Your task to perform on an android device: open chrome and create a bookmark for the current page Image 0: 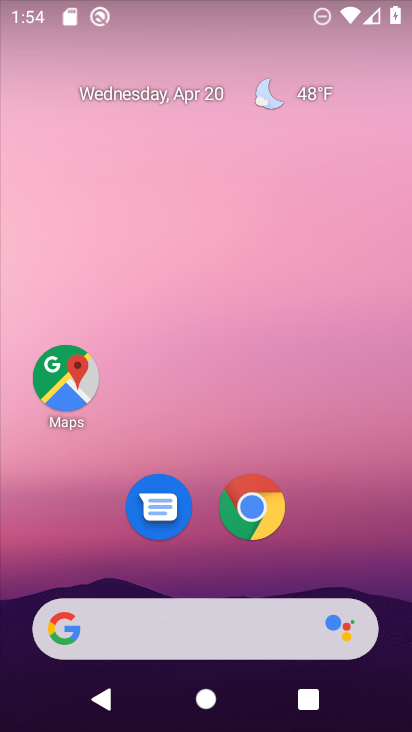
Step 0: drag from (203, 694) to (200, 72)
Your task to perform on an android device: open chrome and create a bookmark for the current page Image 1: 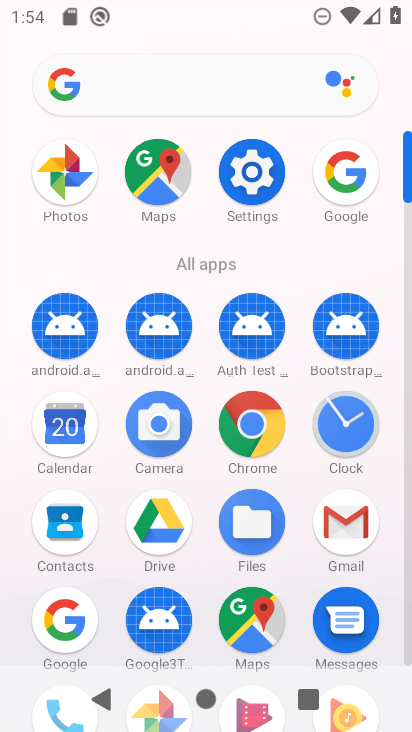
Step 1: click (256, 421)
Your task to perform on an android device: open chrome and create a bookmark for the current page Image 2: 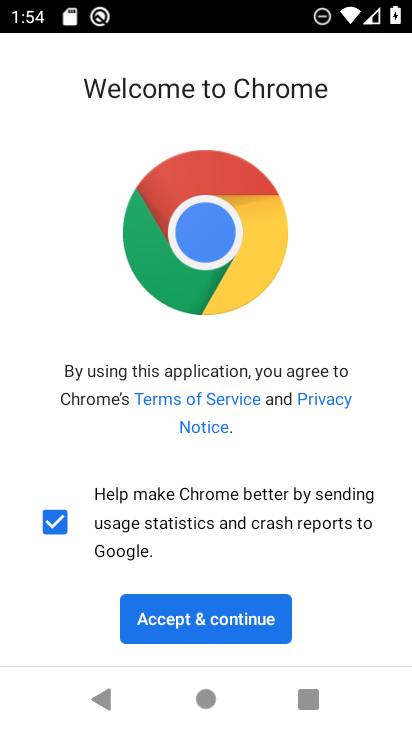
Step 2: click (223, 619)
Your task to perform on an android device: open chrome and create a bookmark for the current page Image 3: 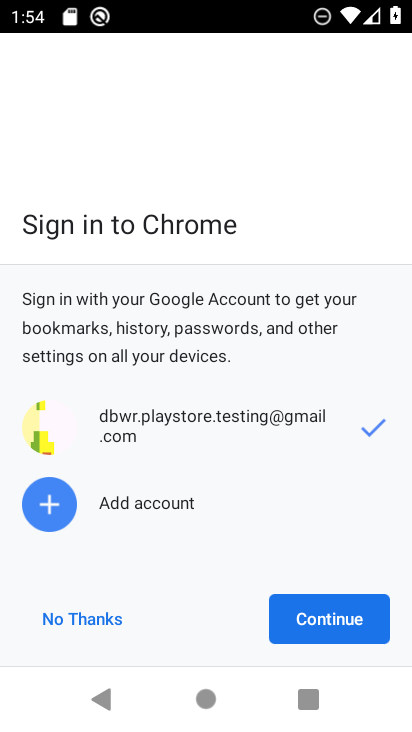
Step 3: click (335, 621)
Your task to perform on an android device: open chrome and create a bookmark for the current page Image 4: 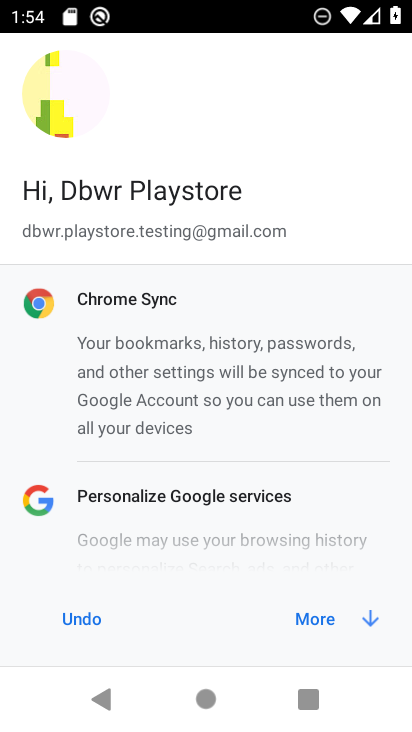
Step 4: click (324, 616)
Your task to perform on an android device: open chrome and create a bookmark for the current page Image 5: 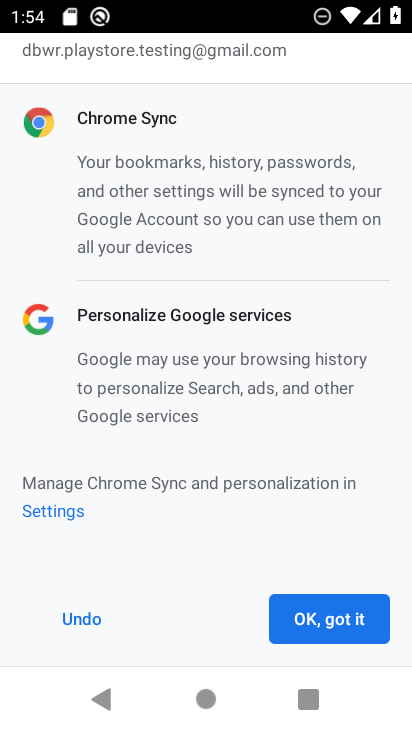
Step 5: click (324, 616)
Your task to perform on an android device: open chrome and create a bookmark for the current page Image 6: 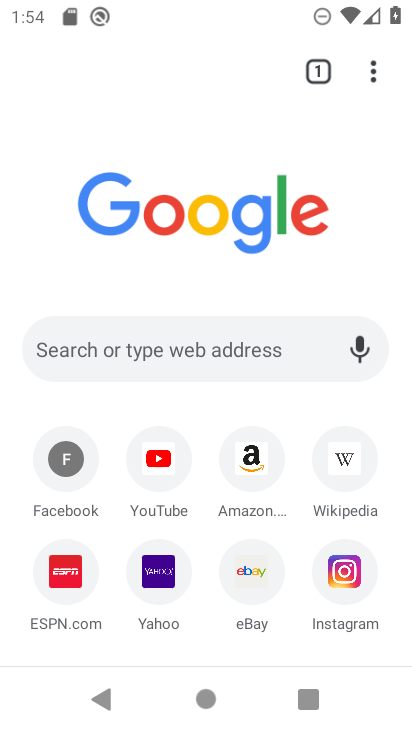
Step 6: click (371, 78)
Your task to perform on an android device: open chrome and create a bookmark for the current page Image 7: 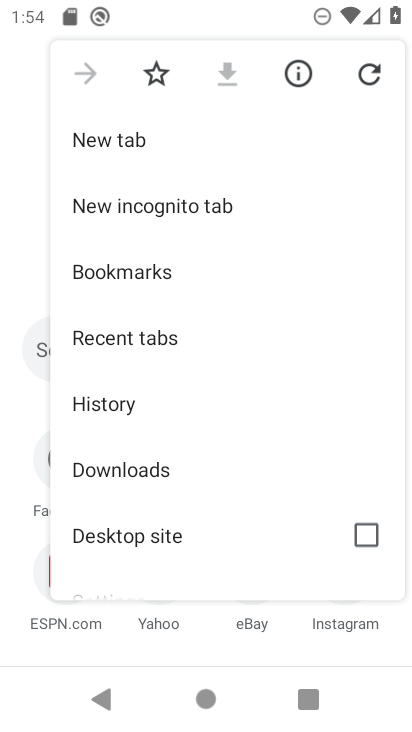
Step 7: click (155, 70)
Your task to perform on an android device: open chrome and create a bookmark for the current page Image 8: 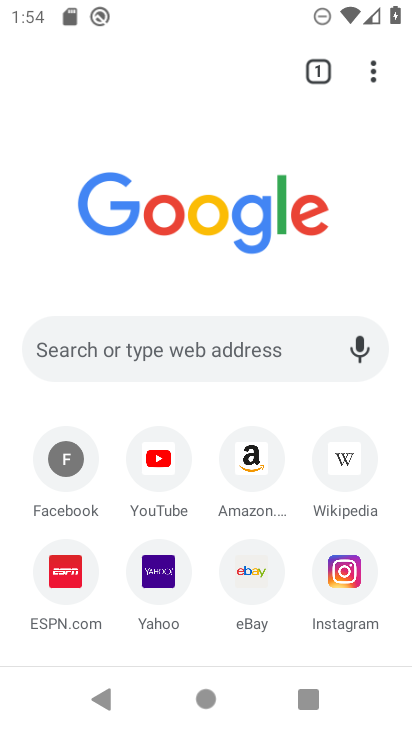
Step 8: task complete